Your task to perform on an android device: turn on bluetooth scan Image 0: 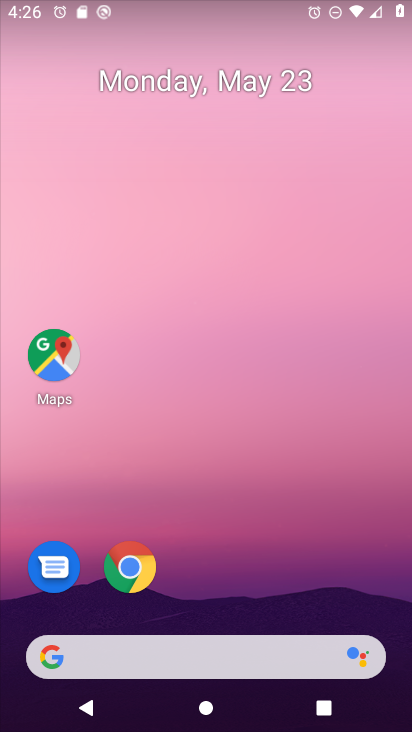
Step 0: drag from (355, 612) to (308, 87)
Your task to perform on an android device: turn on bluetooth scan Image 1: 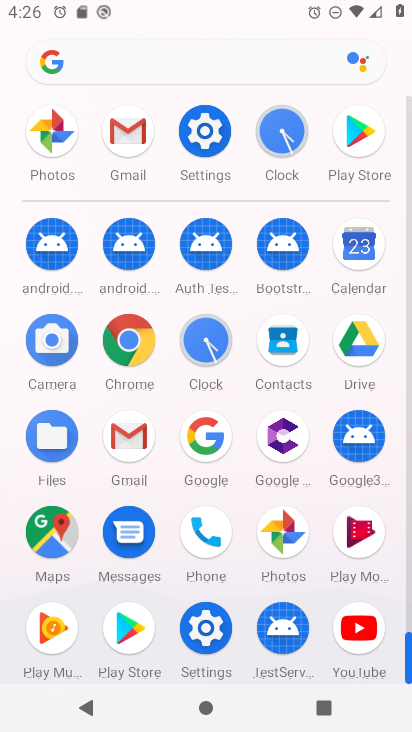
Step 1: click (210, 624)
Your task to perform on an android device: turn on bluetooth scan Image 2: 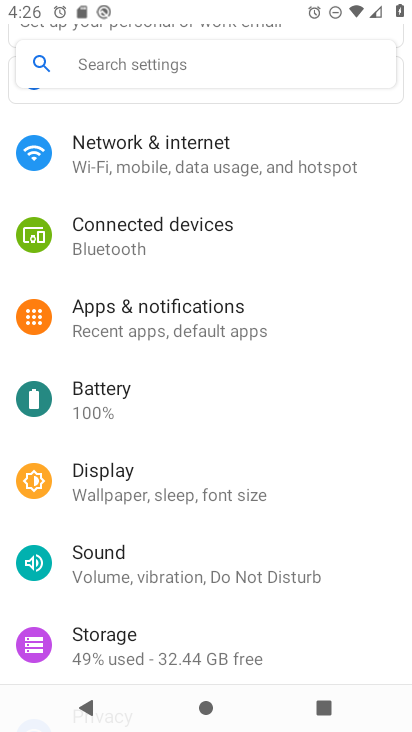
Step 2: drag from (267, 584) to (270, 143)
Your task to perform on an android device: turn on bluetooth scan Image 3: 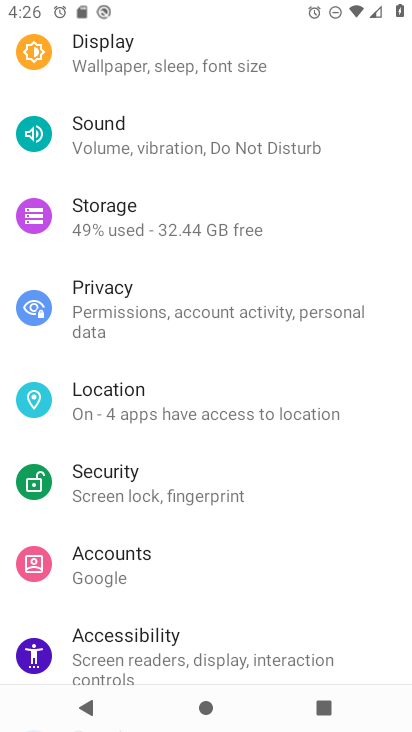
Step 3: click (88, 400)
Your task to perform on an android device: turn on bluetooth scan Image 4: 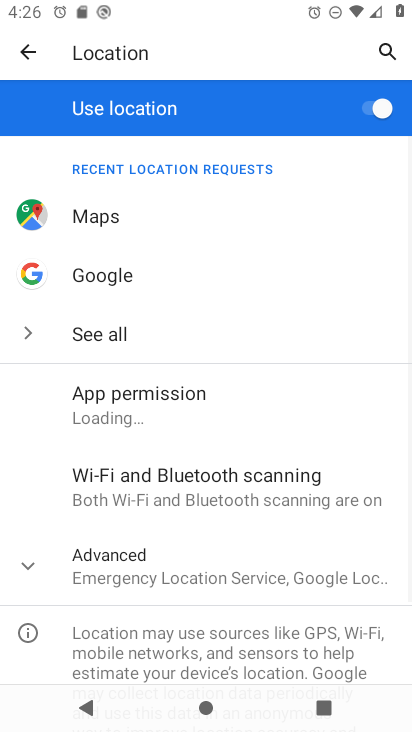
Step 4: click (130, 515)
Your task to perform on an android device: turn on bluetooth scan Image 5: 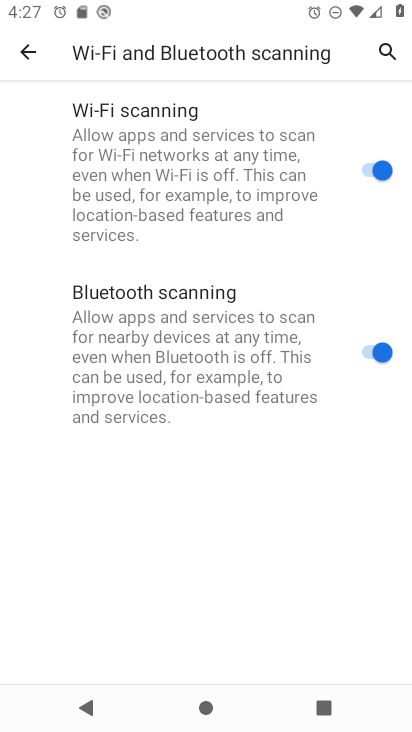
Step 5: task complete